Your task to perform on an android device: Find coffee shops on Maps Image 0: 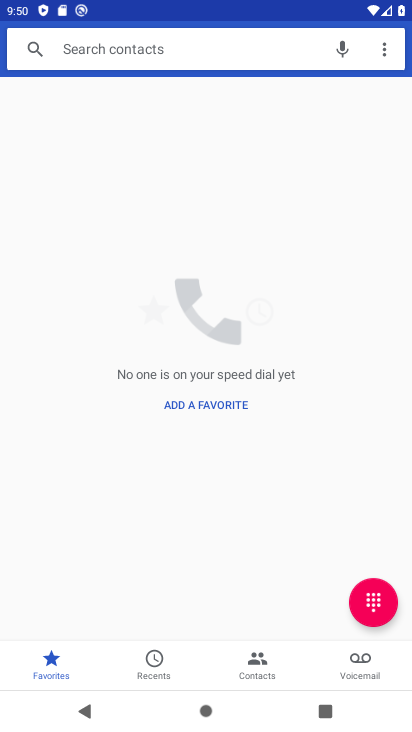
Step 0: press back button
Your task to perform on an android device: Find coffee shops on Maps Image 1: 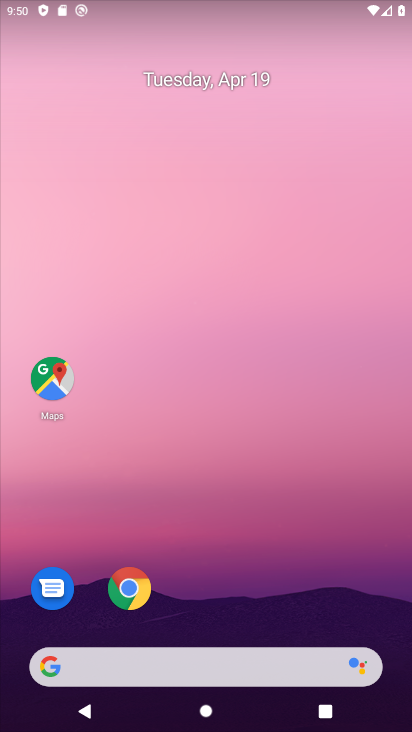
Step 1: click (54, 383)
Your task to perform on an android device: Find coffee shops on Maps Image 2: 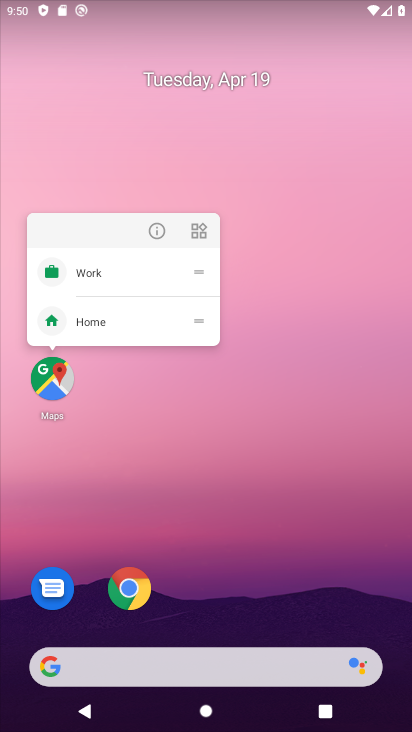
Step 2: click (156, 229)
Your task to perform on an android device: Find coffee shops on Maps Image 3: 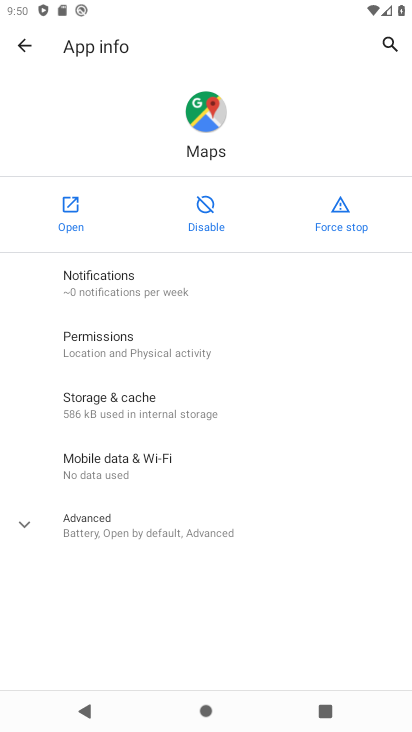
Step 3: click (64, 208)
Your task to perform on an android device: Find coffee shops on Maps Image 4: 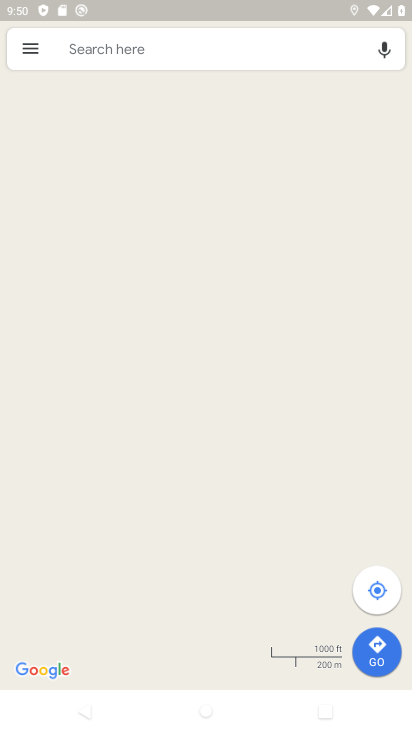
Step 4: click (109, 52)
Your task to perform on an android device: Find coffee shops on Maps Image 5: 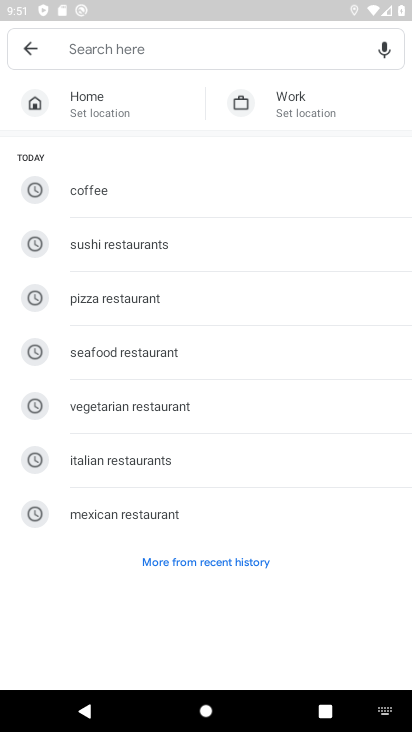
Step 5: type "coffee shop"
Your task to perform on an android device: Find coffee shops on Maps Image 6: 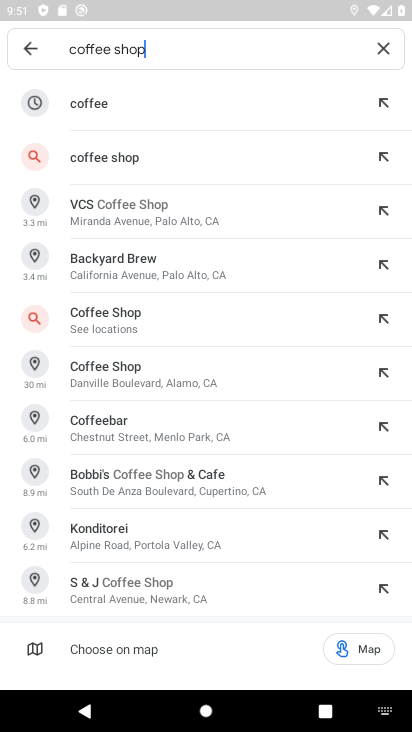
Step 6: click (155, 158)
Your task to perform on an android device: Find coffee shops on Maps Image 7: 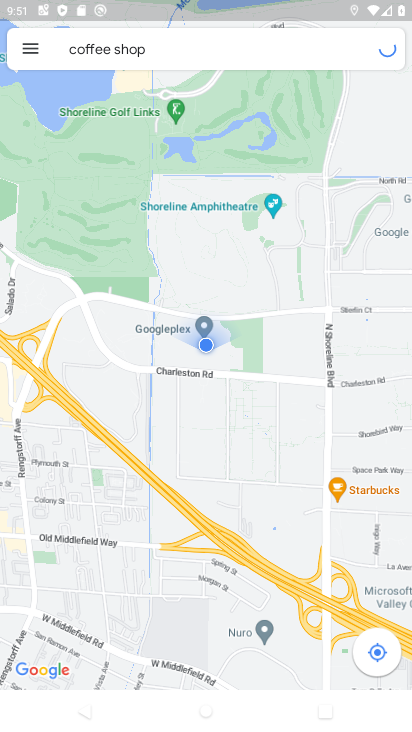
Step 7: task complete